Your task to perform on an android device: Go to eBay Image 0: 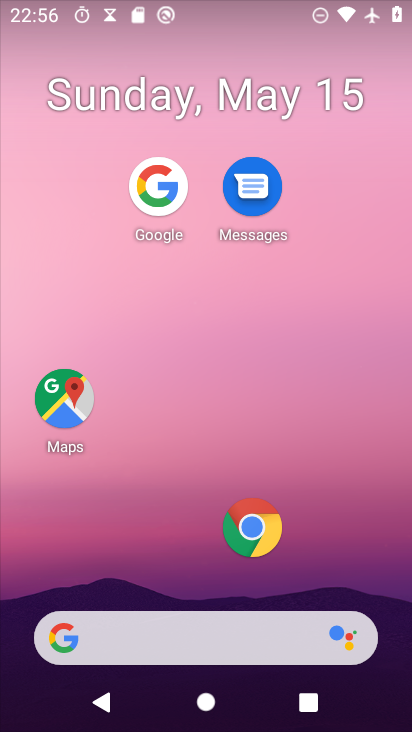
Step 0: drag from (169, 646) to (297, 164)
Your task to perform on an android device: Go to eBay Image 1: 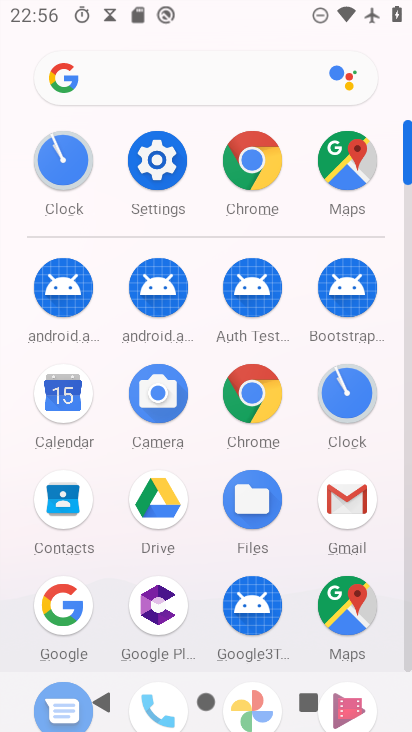
Step 1: click (249, 176)
Your task to perform on an android device: Go to eBay Image 2: 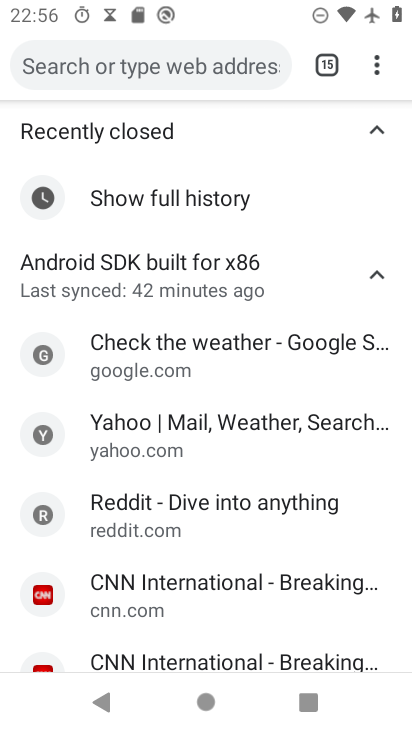
Step 2: drag from (381, 70) to (230, 134)
Your task to perform on an android device: Go to eBay Image 3: 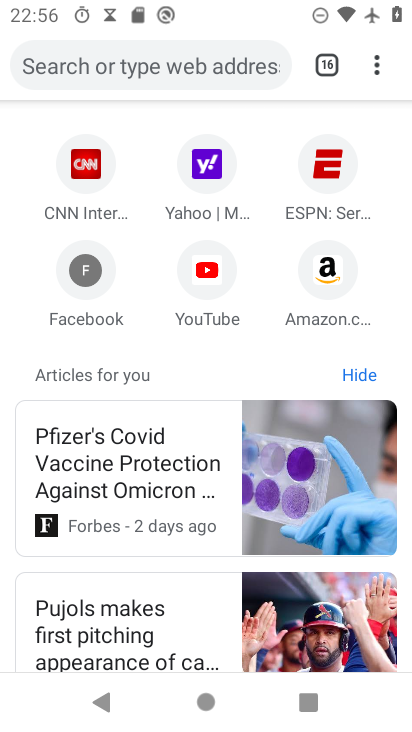
Step 3: click (144, 69)
Your task to perform on an android device: Go to eBay Image 4: 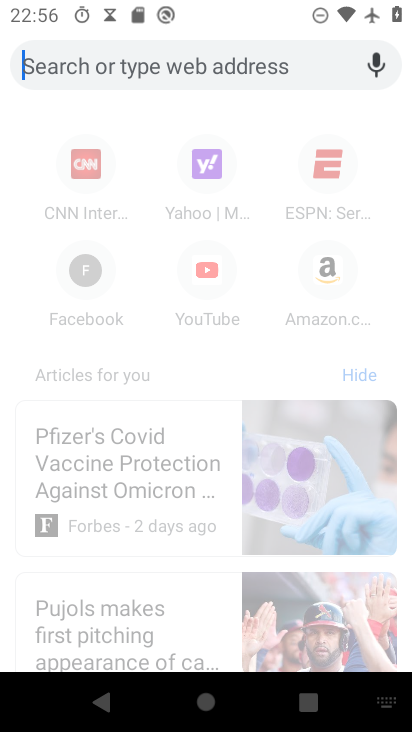
Step 4: type "ebay"
Your task to perform on an android device: Go to eBay Image 5: 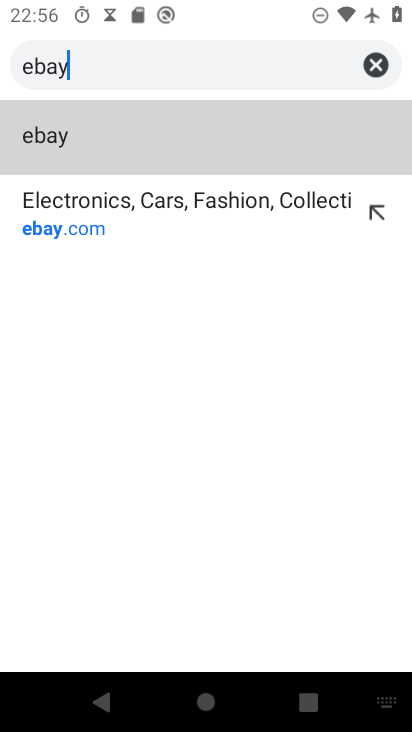
Step 5: click (134, 206)
Your task to perform on an android device: Go to eBay Image 6: 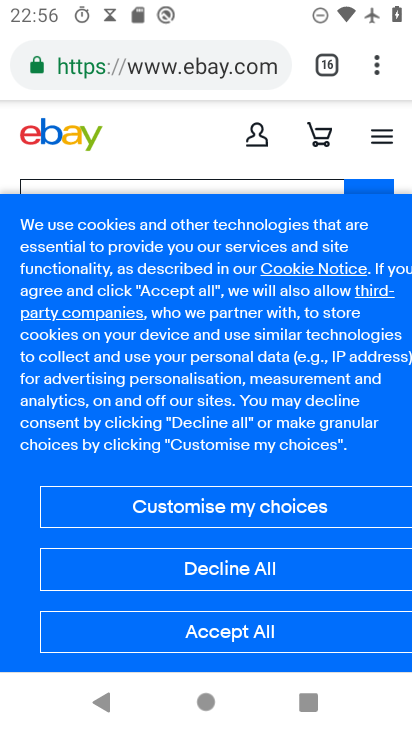
Step 6: task complete